Your task to perform on an android device: check out phone information Image 0: 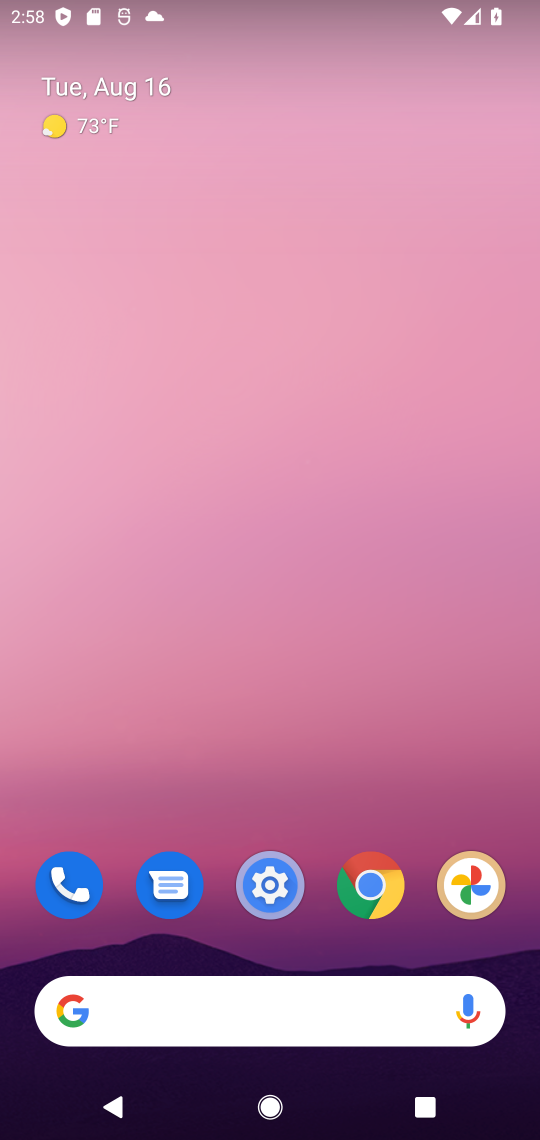
Step 0: drag from (262, 349) to (228, 225)
Your task to perform on an android device: check out phone information Image 1: 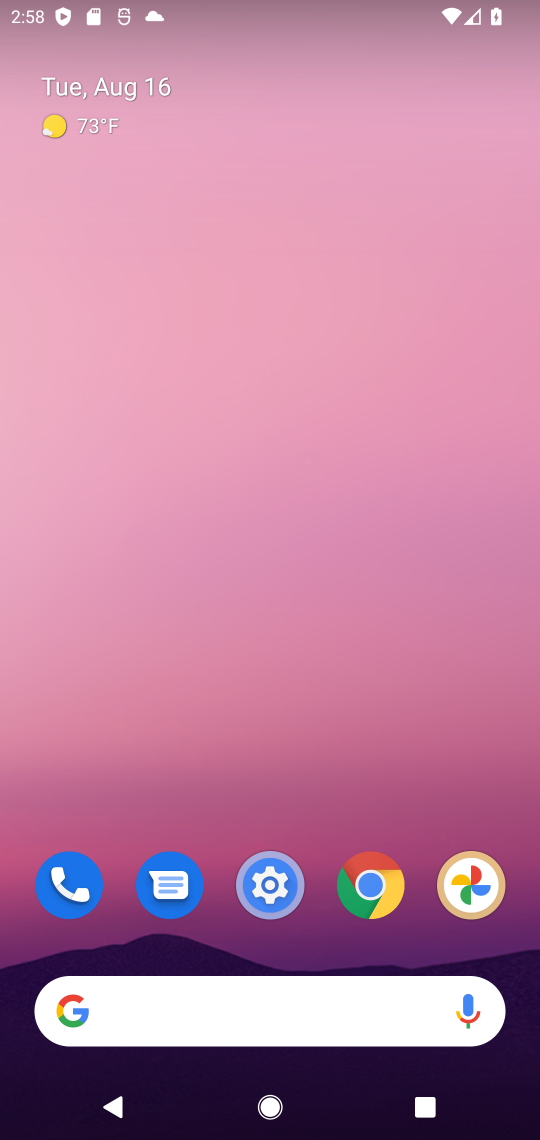
Step 1: drag from (241, 846) to (227, 94)
Your task to perform on an android device: check out phone information Image 2: 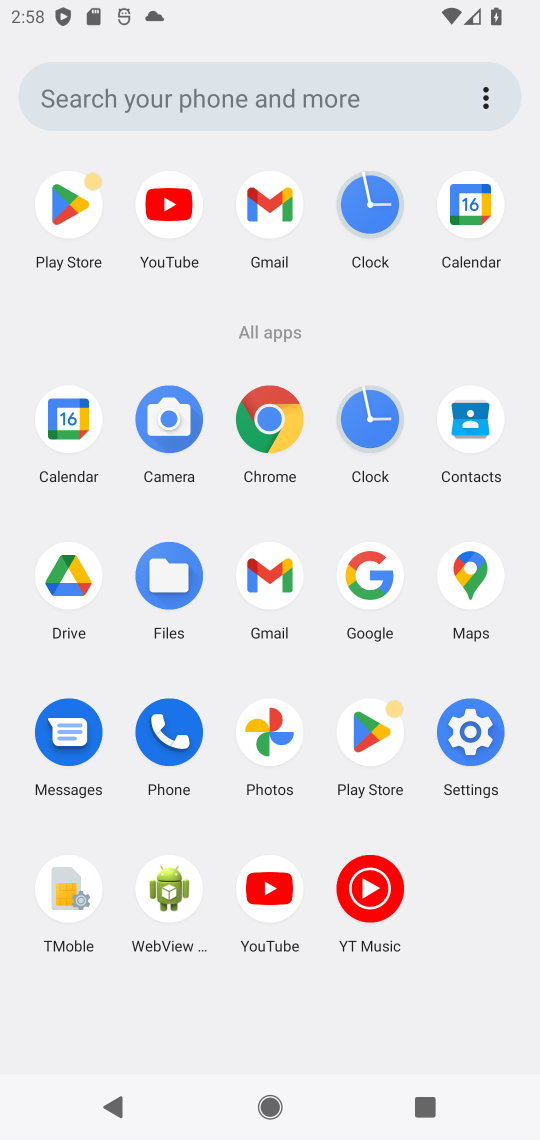
Step 2: click (493, 718)
Your task to perform on an android device: check out phone information Image 3: 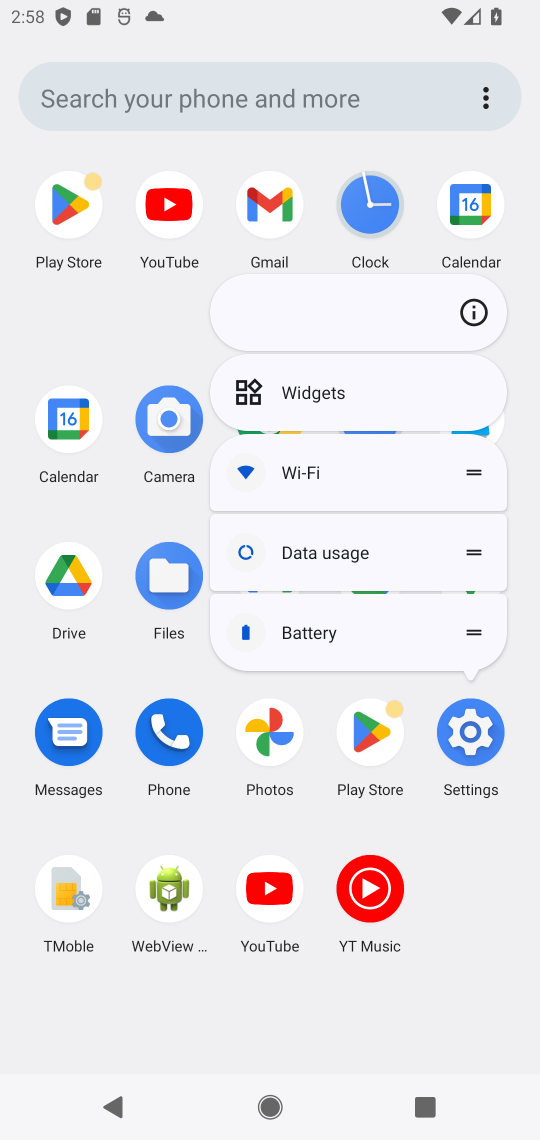
Step 3: click (465, 714)
Your task to perform on an android device: check out phone information Image 4: 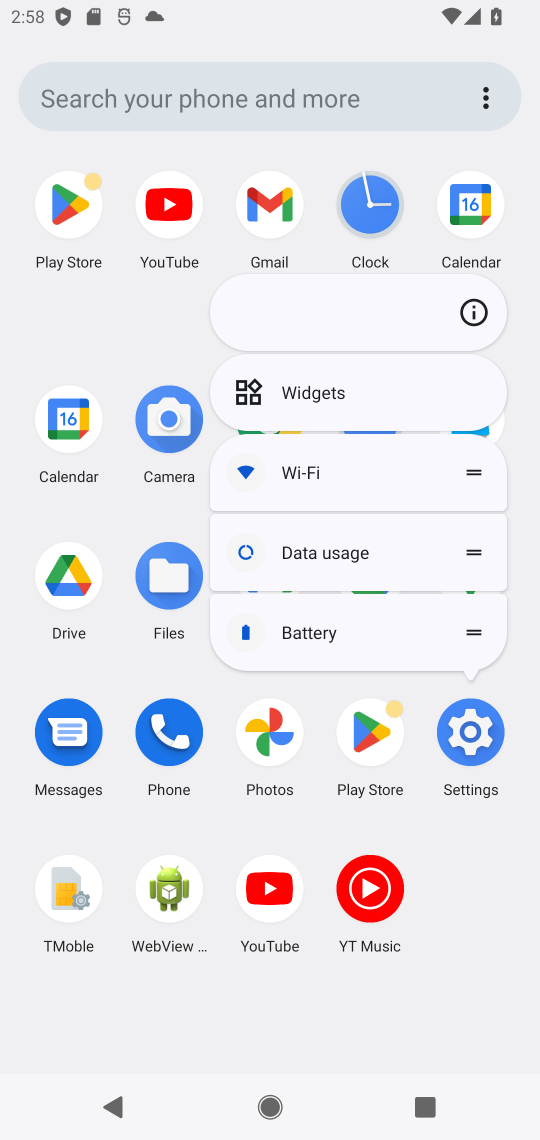
Step 4: click (465, 729)
Your task to perform on an android device: check out phone information Image 5: 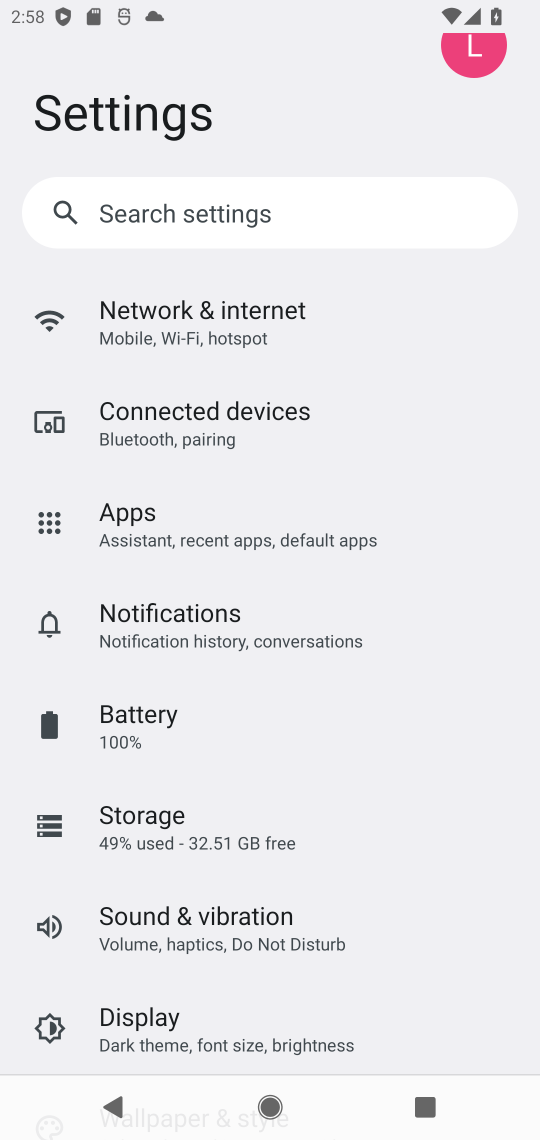
Step 5: drag from (306, 968) to (304, 68)
Your task to perform on an android device: check out phone information Image 6: 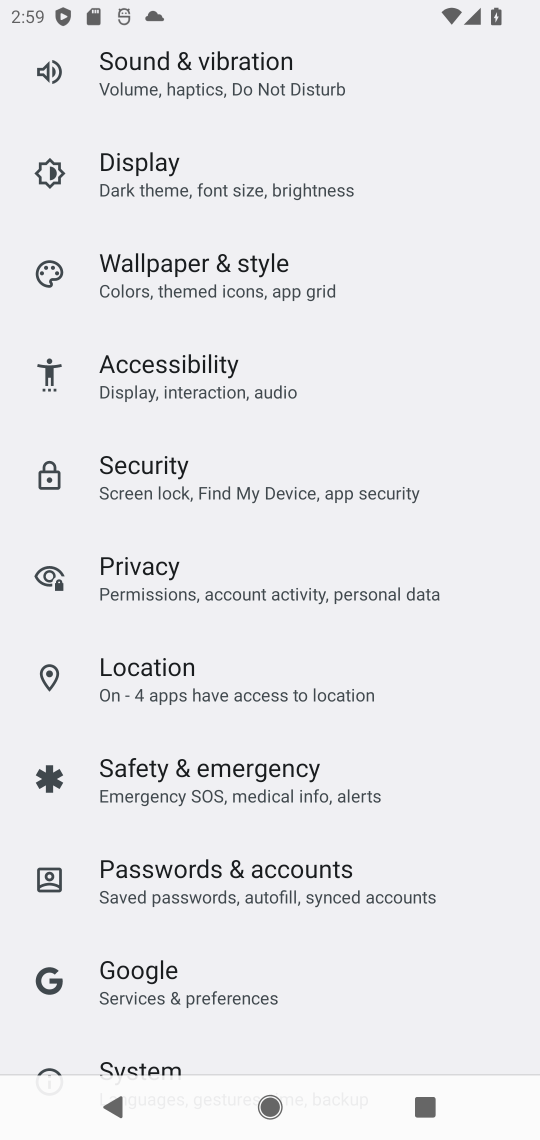
Step 6: drag from (245, 903) to (312, 234)
Your task to perform on an android device: check out phone information Image 7: 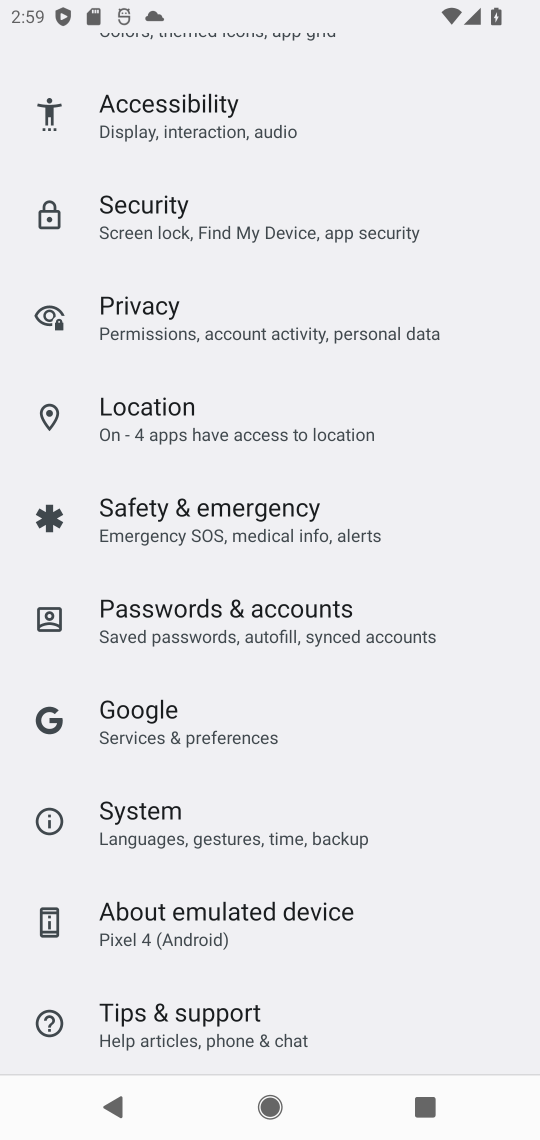
Step 7: click (219, 936)
Your task to perform on an android device: check out phone information Image 8: 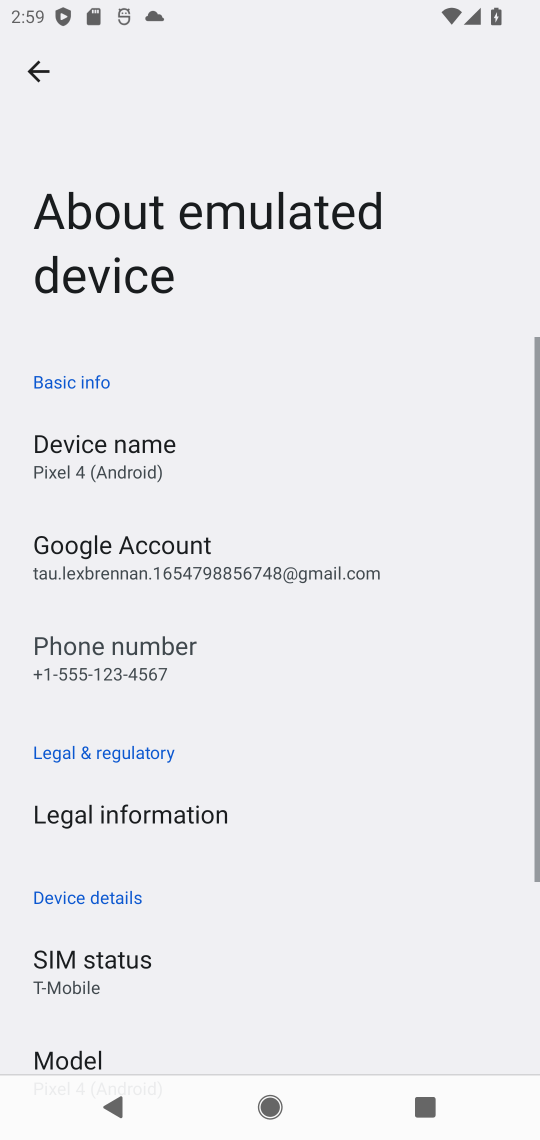
Step 8: task complete